Your task to perform on an android device: Is it going to rain tomorrow? Image 0: 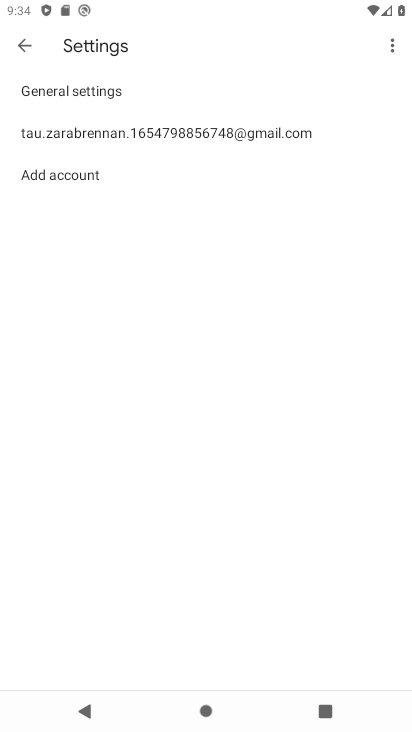
Step 0: press back button
Your task to perform on an android device: Is it going to rain tomorrow? Image 1: 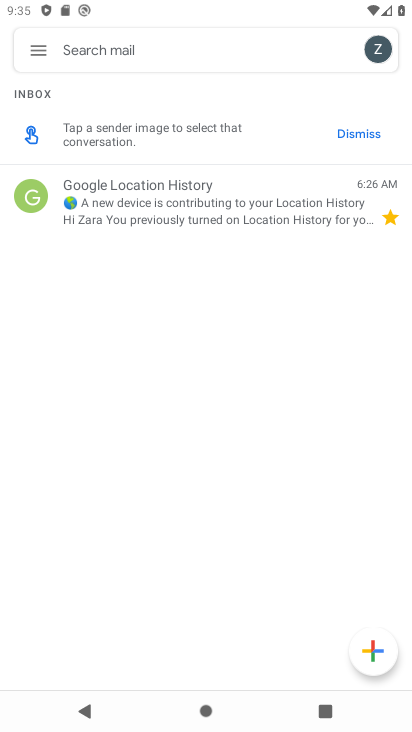
Step 1: press back button
Your task to perform on an android device: Is it going to rain tomorrow? Image 2: 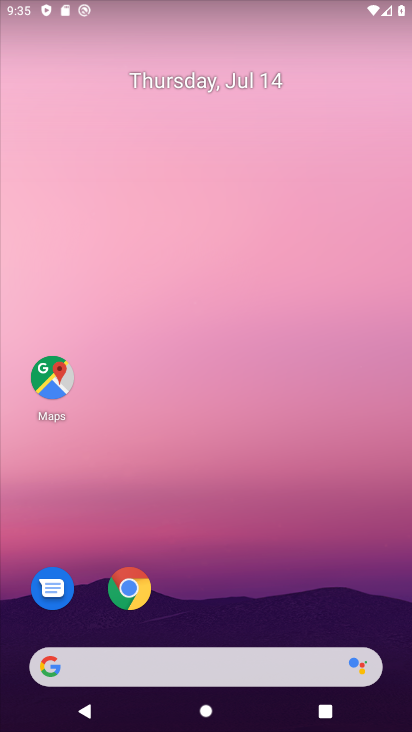
Step 2: drag from (229, 581) to (306, 8)
Your task to perform on an android device: Is it going to rain tomorrow? Image 3: 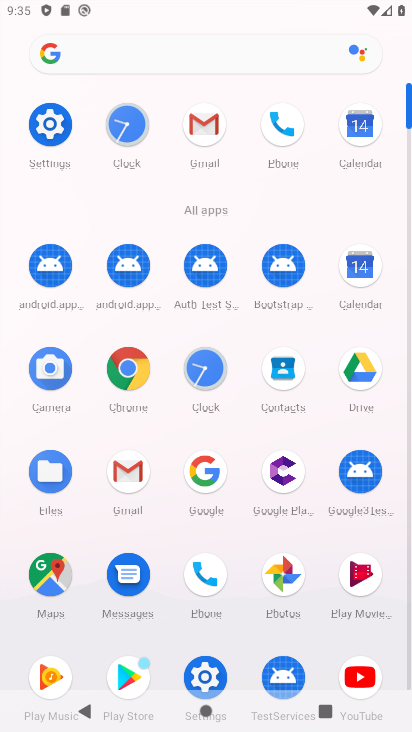
Step 3: click (357, 276)
Your task to perform on an android device: Is it going to rain tomorrow? Image 4: 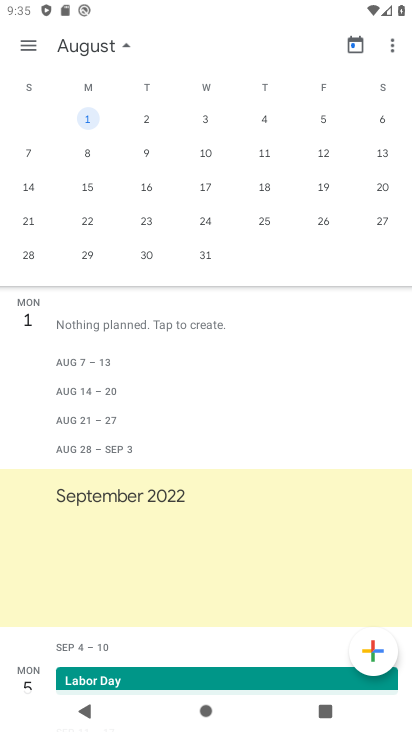
Step 4: press back button
Your task to perform on an android device: Is it going to rain tomorrow? Image 5: 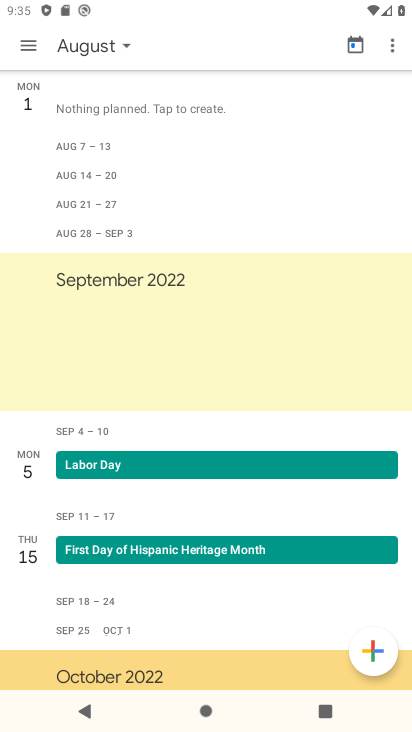
Step 5: press back button
Your task to perform on an android device: Is it going to rain tomorrow? Image 6: 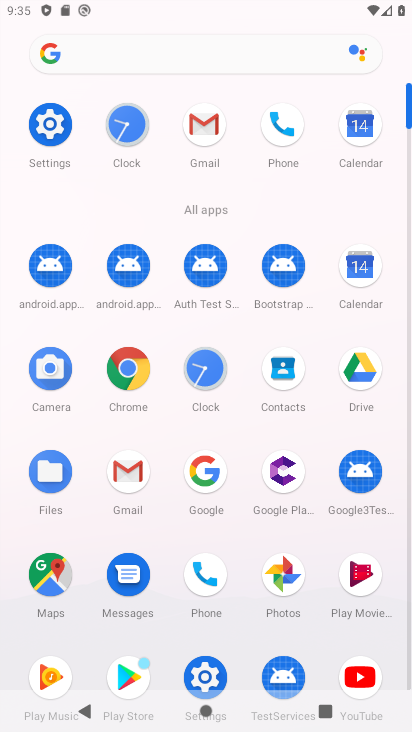
Step 6: click (197, 62)
Your task to perform on an android device: Is it going to rain tomorrow? Image 7: 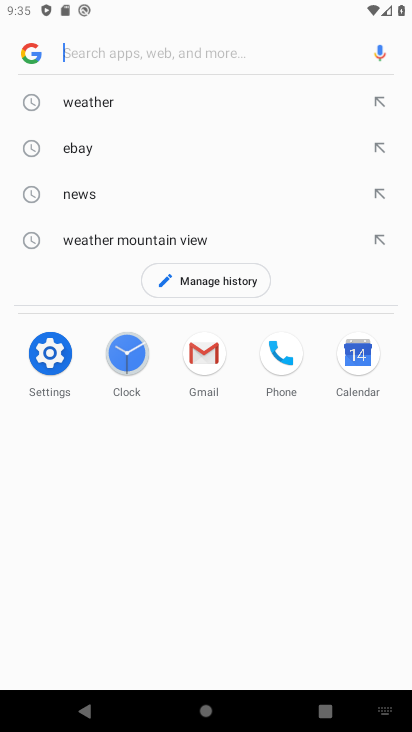
Step 7: click (93, 77)
Your task to perform on an android device: Is it going to rain tomorrow? Image 8: 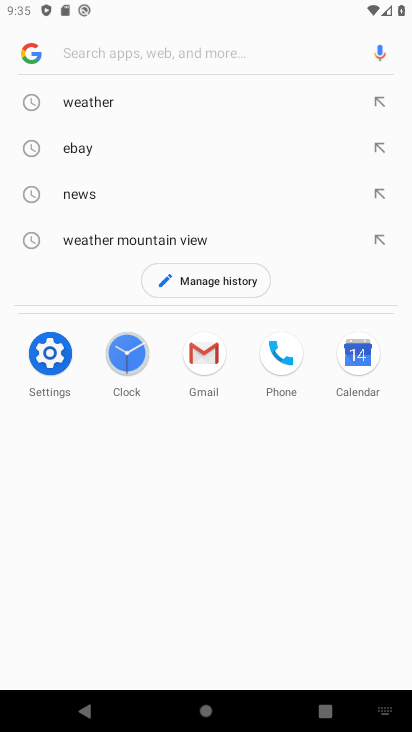
Step 8: click (93, 92)
Your task to perform on an android device: Is it going to rain tomorrow? Image 9: 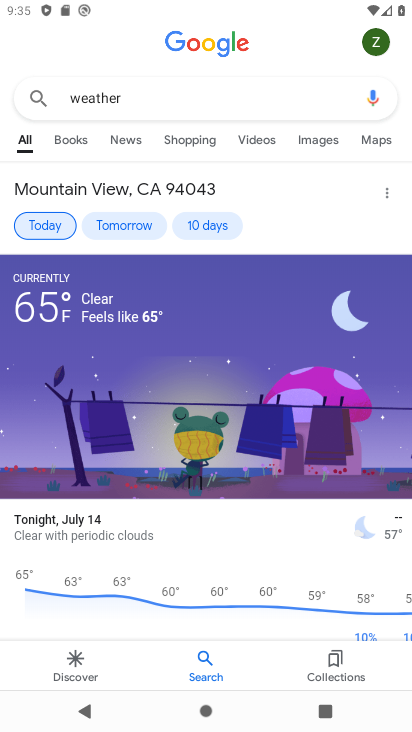
Step 9: click (115, 226)
Your task to perform on an android device: Is it going to rain tomorrow? Image 10: 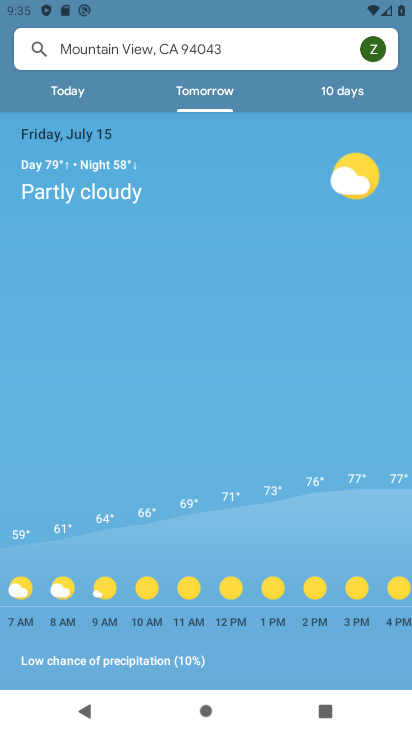
Step 10: task complete